Your task to perform on an android device: Search for pizza restaurants on Maps Image 0: 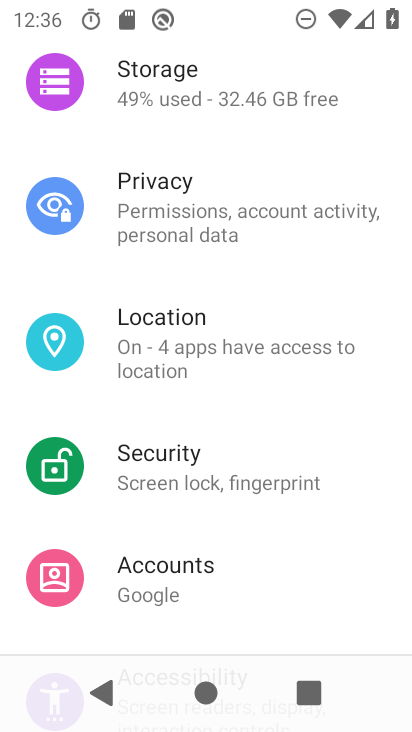
Step 0: drag from (208, 548) to (221, 391)
Your task to perform on an android device: Search for pizza restaurants on Maps Image 1: 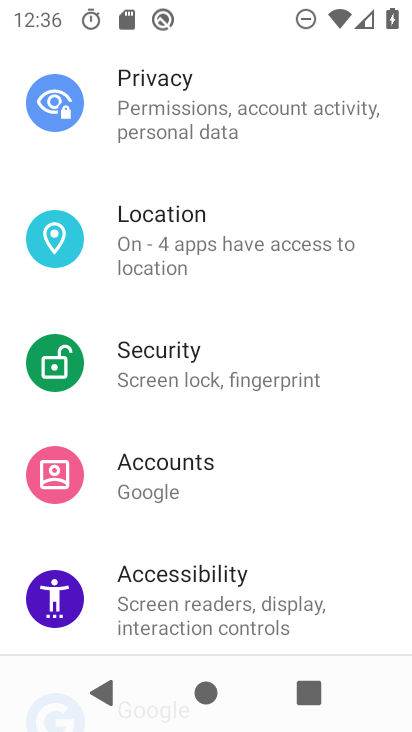
Step 1: press home button
Your task to perform on an android device: Search for pizza restaurants on Maps Image 2: 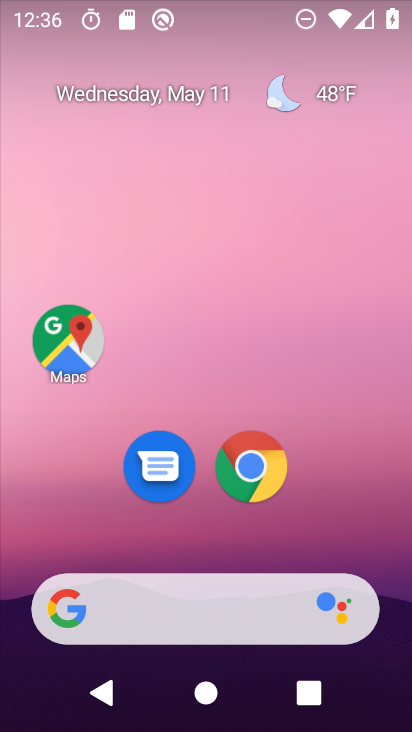
Step 2: drag from (209, 540) to (222, 36)
Your task to perform on an android device: Search for pizza restaurants on Maps Image 3: 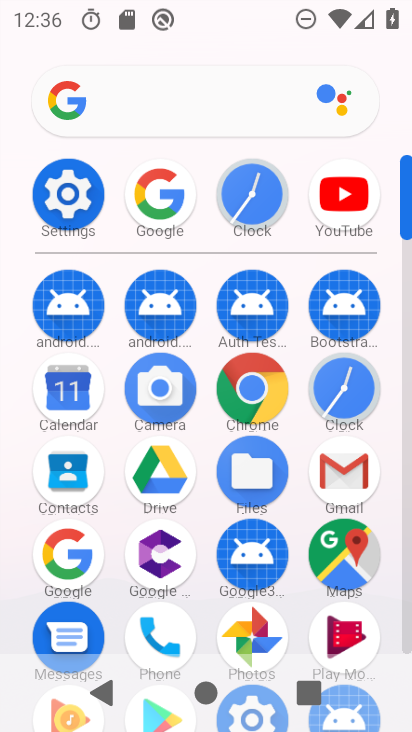
Step 3: click (343, 551)
Your task to perform on an android device: Search for pizza restaurants on Maps Image 4: 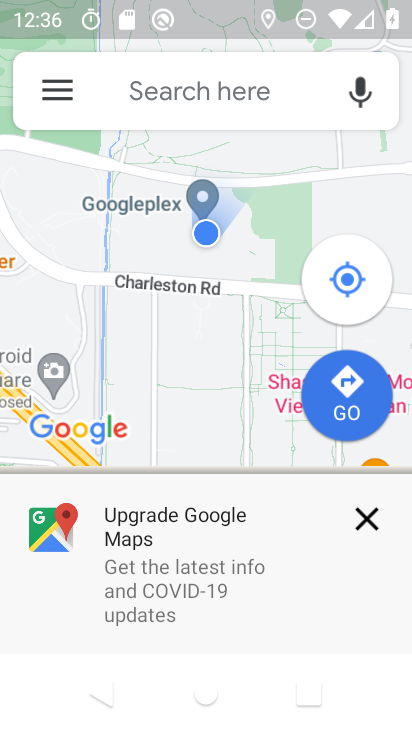
Step 4: click (151, 73)
Your task to perform on an android device: Search for pizza restaurants on Maps Image 5: 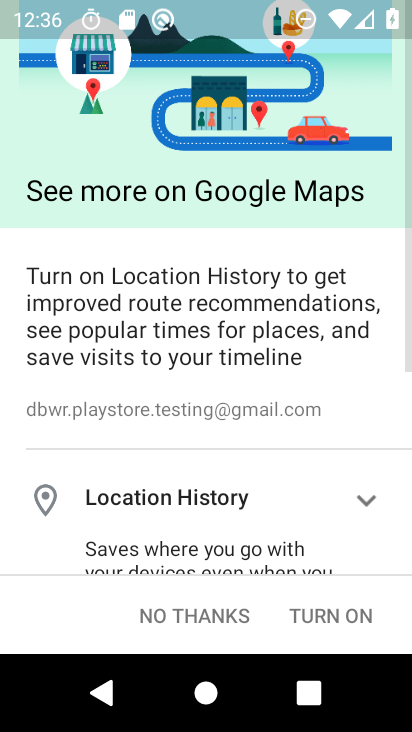
Step 5: click (326, 618)
Your task to perform on an android device: Search for pizza restaurants on Maps Image 6: 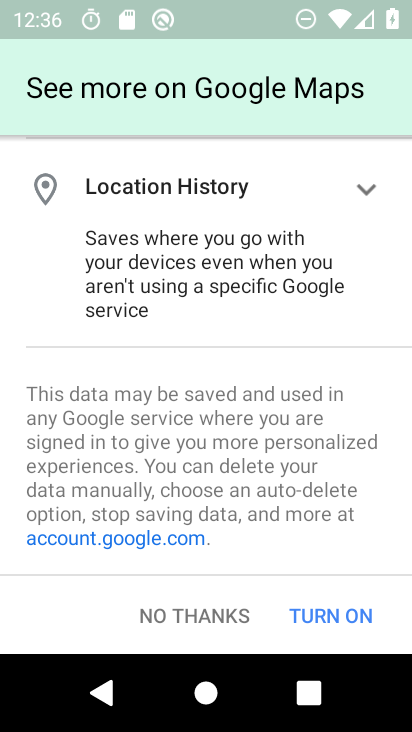
Step 6: click (330, 613)
Your task to perform on an android device: Search for pizza restaurants on Maps Image 7: 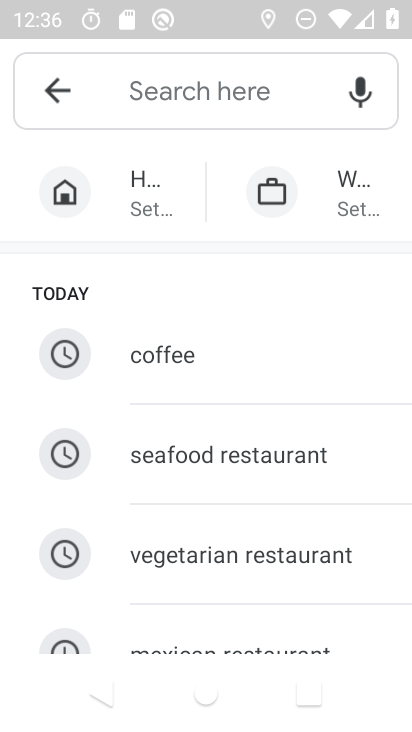
Step 7: drag from (217, 604) to (222, 238)
Your task to perform on an android device: Search for pizza restaurants on Maps Image 8: 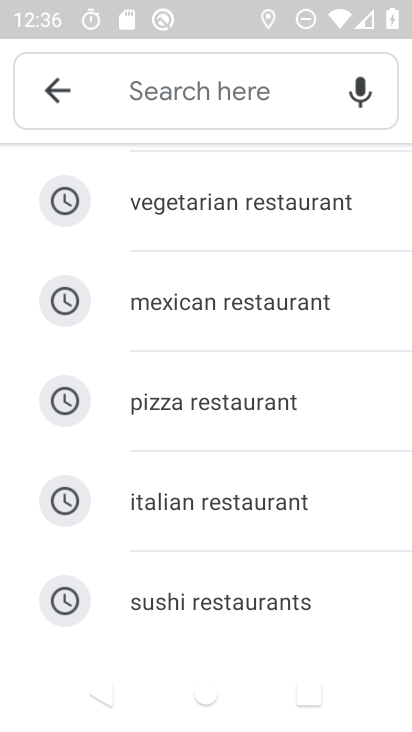
Step 8: click (188, 404)
Your task to perform on an android device: Search for pizza restaurants on Maps Image 9: 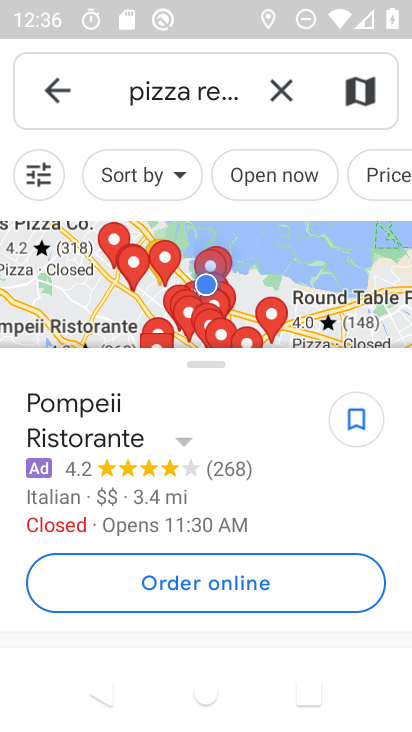
Step 9: task complete